Your task to perform on an android device: change the clock display to analog Image 0: 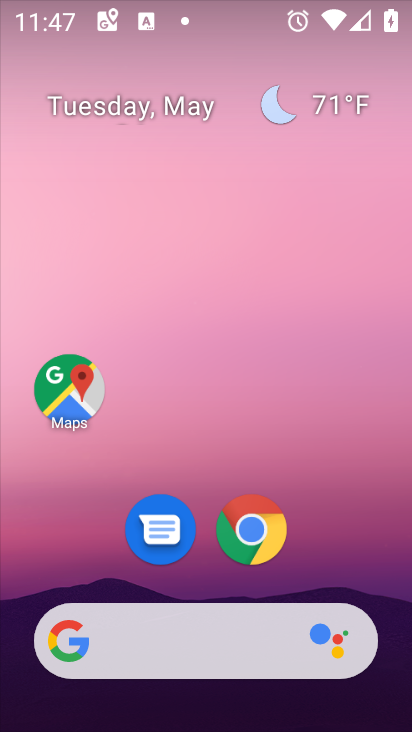
Step 0: drag from (207, 637) to (150, 170)
Your task to perform on an android device: change the clock display to analog Image 1: 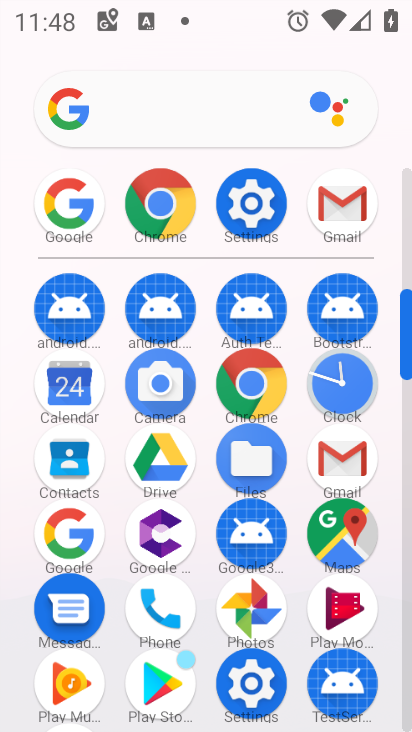
Step 1: click (358, 378)
Your task to perform on an android device: change the clock display to analog Image 2: 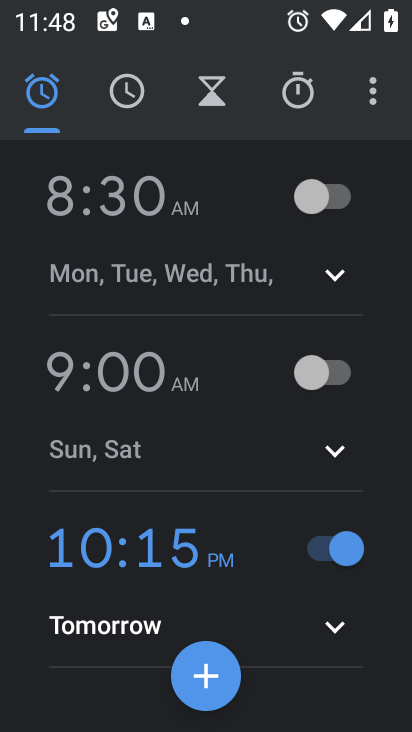
Step 2: click (381, 102)
Your task to perform on an android device: change the clock display to analog Image 3: 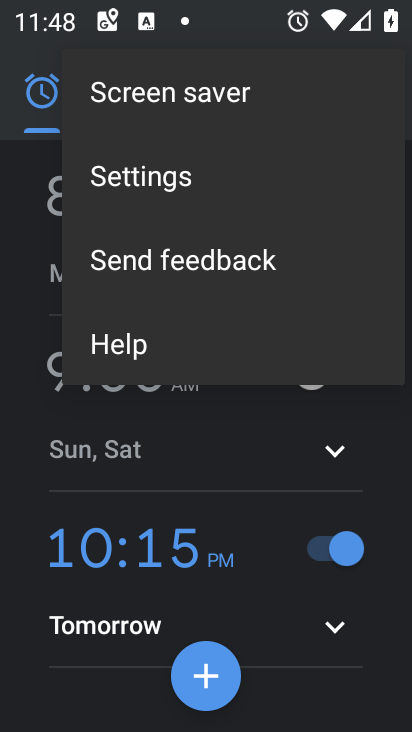
Step 3: click (197, 177)
Your task to perform on an android device: change the clock display to analog Image 4: 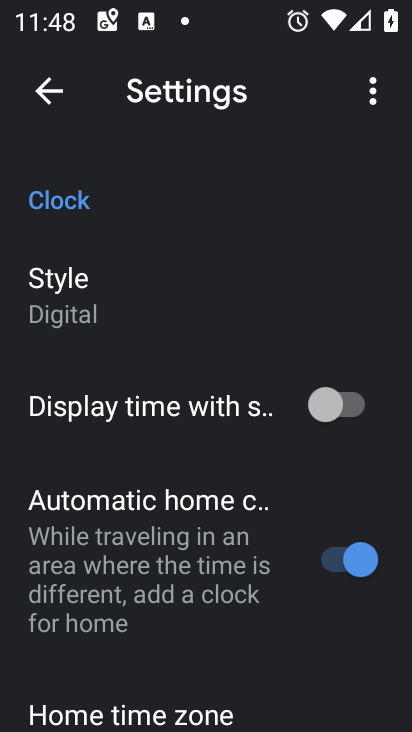
Step 4: click (82, 322)
Your task to perform on an android device: change the clock display to analog Image 5: 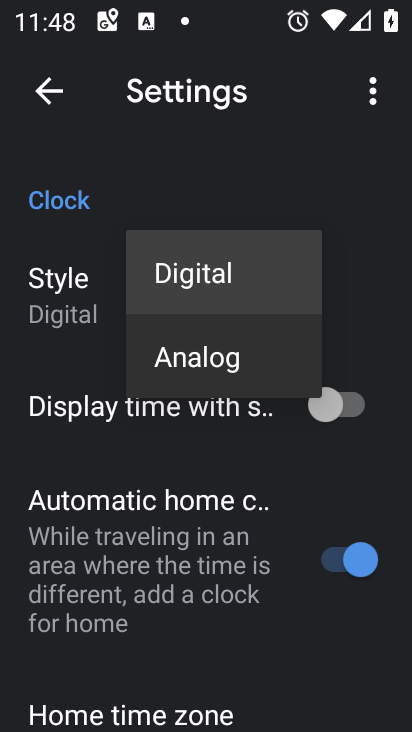
Step 5: click (192, 364)
Your task to perform on an android device: change the clock display to analog Image 6: 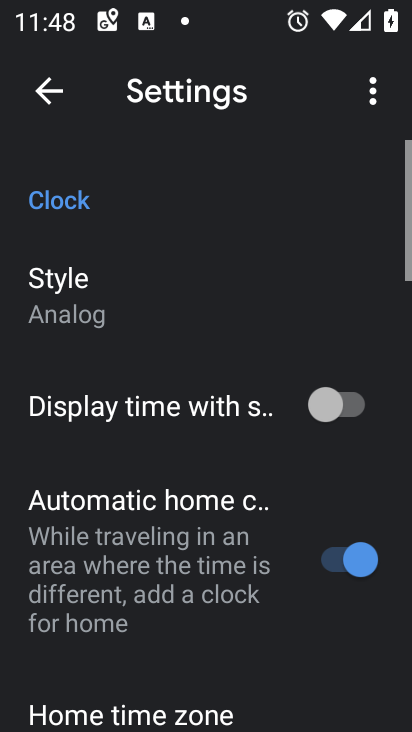
Step 6: task complete